Your task to perform on an android device: Open my contact list Image 0: 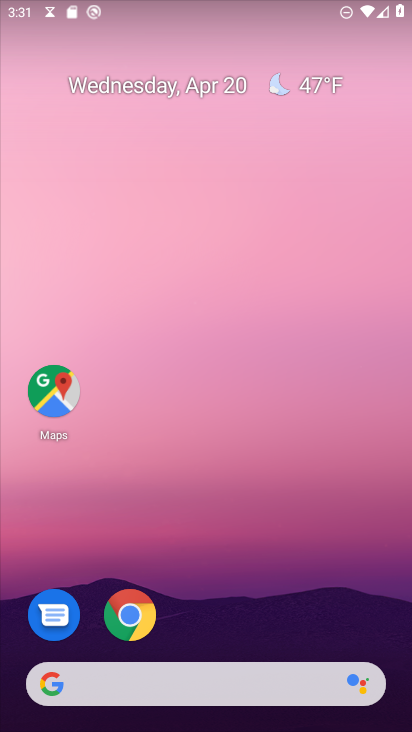
Step 0: drag from (216, 609) to (169, 136)
Your task to perform on an android device: Open my contact list Image 1: 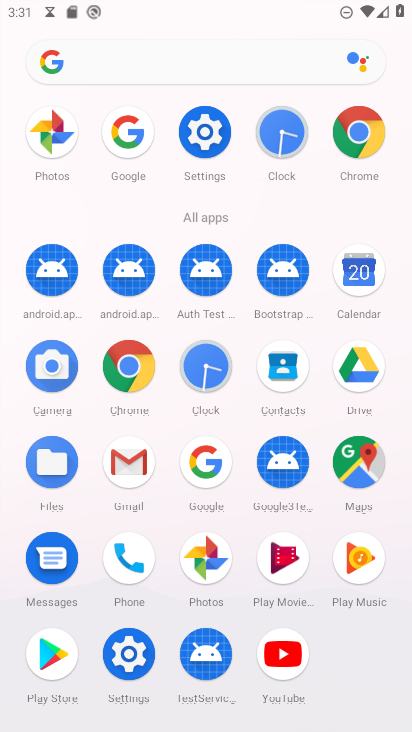
Step 1: click (278, 366)
Your task to perform on an android device: Open my contact list Image 2: 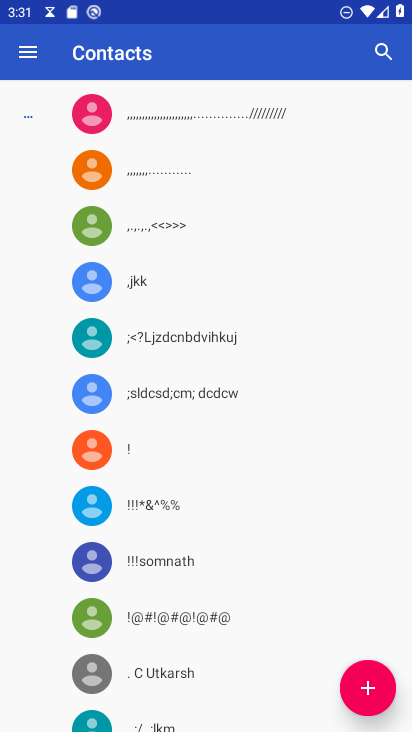
Step 2: task complete